Your task to perform on an android device: create a new album in the google photos Image 0: 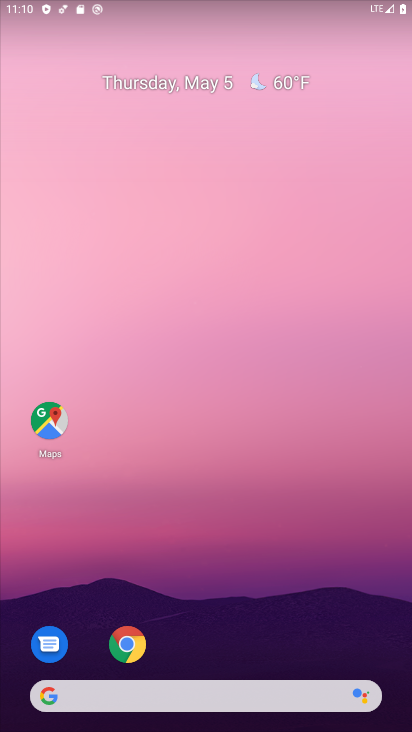
Step 0: drag from (363, 632) to (313, 111)
Your task to perform on an android device: create a new album in the google photos Image 1: 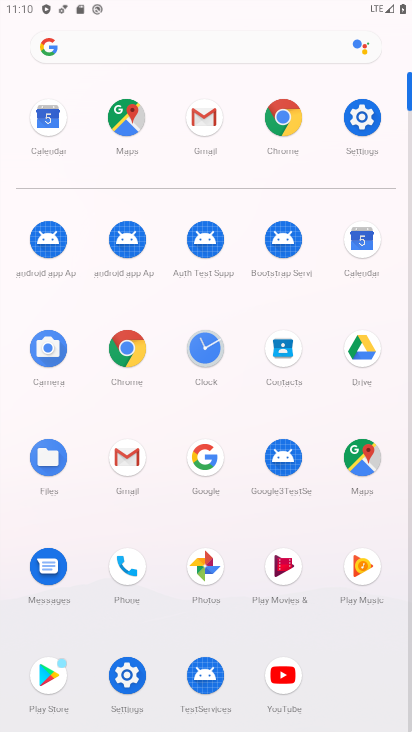
Step 1: click (207, 574)
Your task to perform on an android device: create a new album in the google photos Image 2: 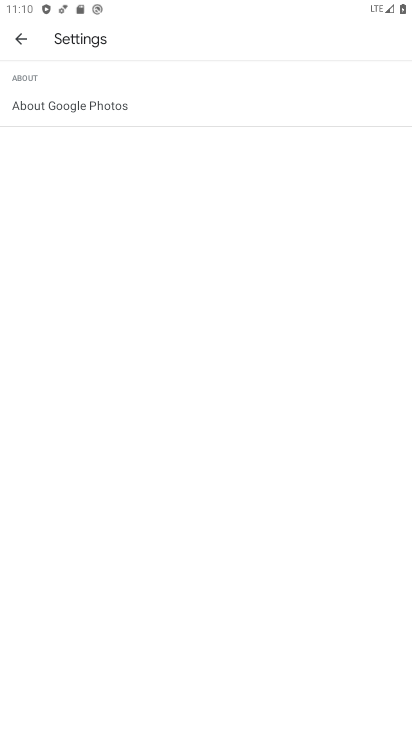
Step 2: click (19, 35)
Your task to perform on an android device: create a new album in the google photos Image 3: 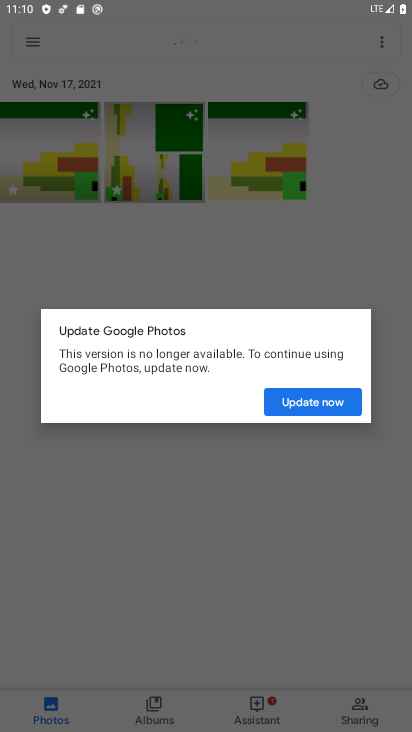
Step 3: click (306, 409)
Your task to perform on an android device: create a new album in the google photos Image 4: 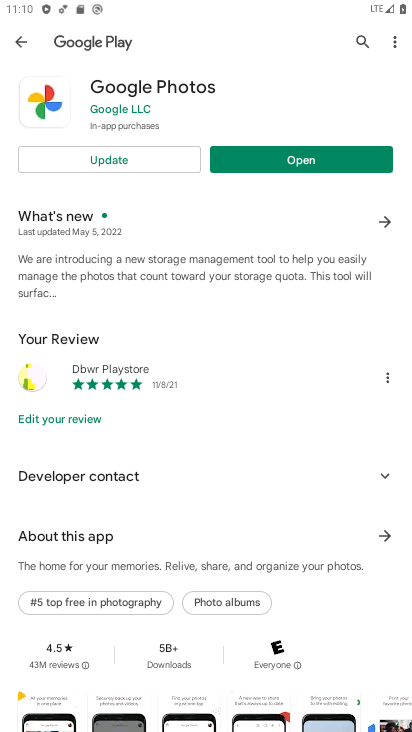
Step 4: click (146, 155)
Your task to perform on an android device: create a new album in the google photos Image 5: 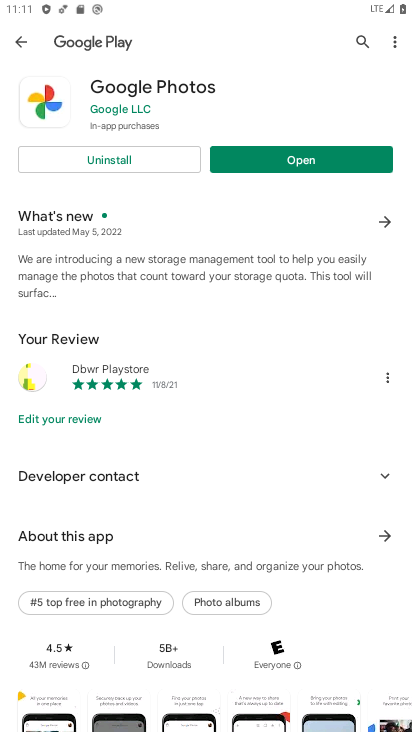
Step 5: click (330, 160)
Your task to perform on an android device: create a new album in the google photos Image 6: 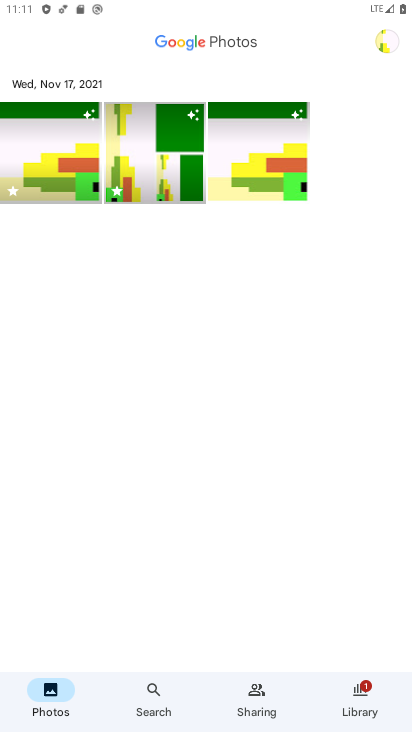
Step 6: click (367, 701)
Your task to perform on an android device: create a new album in the google photos Image 7: 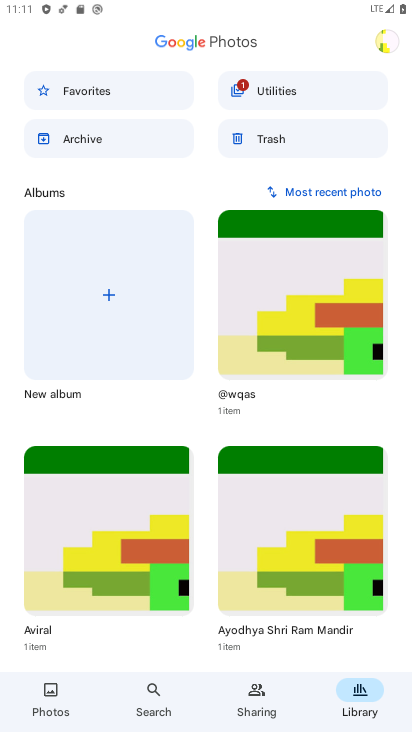
Step 7: click (100, 295)
Your task to perform on an android device: create a new album in the google photos Image 8: 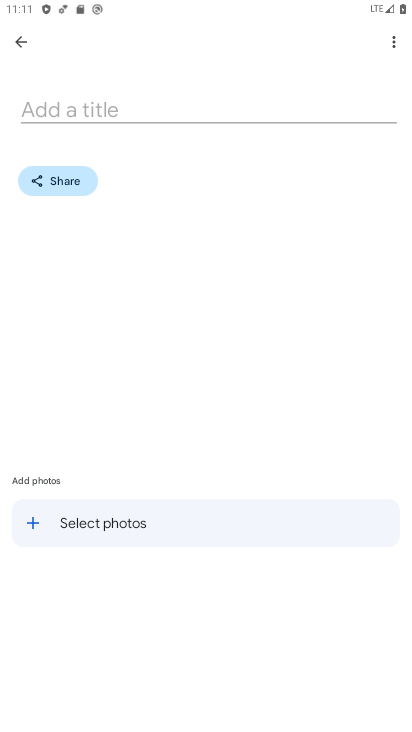
Step 8: click (133, 107)
Your task to perform on an android device: create a new album in the google photos Image 9: 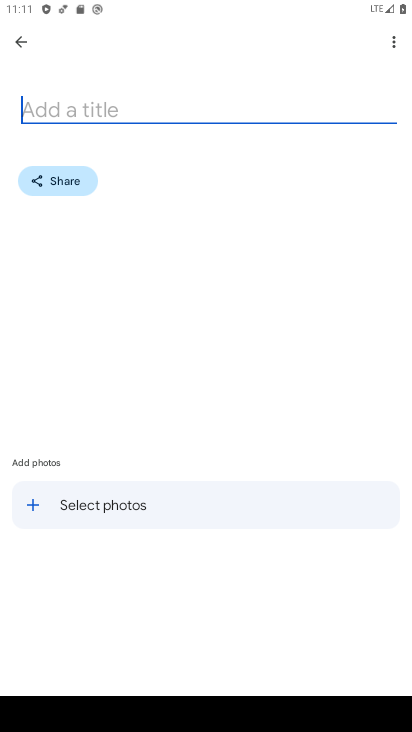
Step 9: type "aaada"
Your task to perform on an android device: create a new album in the google photos Image 10: 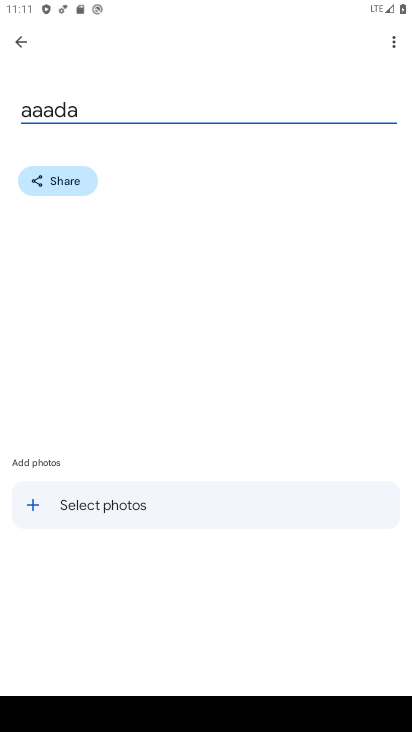
Step 10: click (33, 505)
Your task to perform on an android device: create a new album in the google photos Image 11: 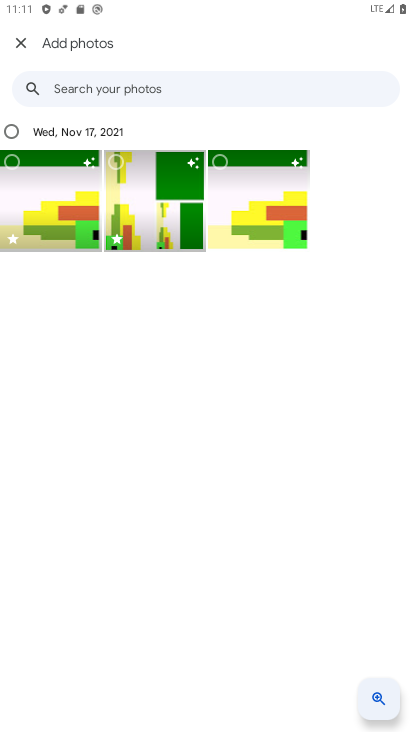
Step 11: click (15, 165)
Your task to perform on an android device: create a new album in the google photos Image 12: 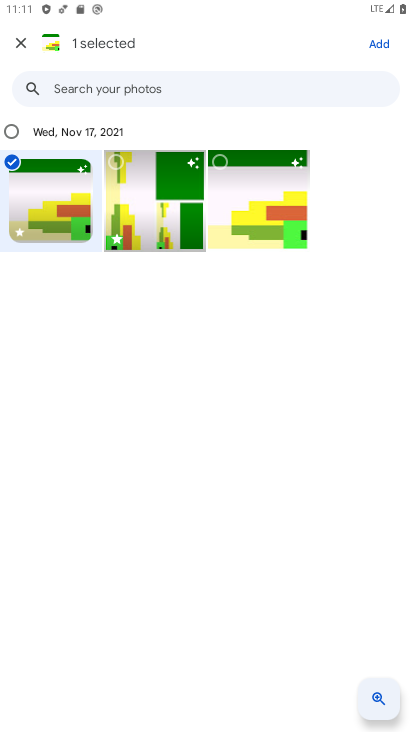
Step 12: click (377, 43)
Your task to perform on an android device: create a new album in the google photos Image 13: 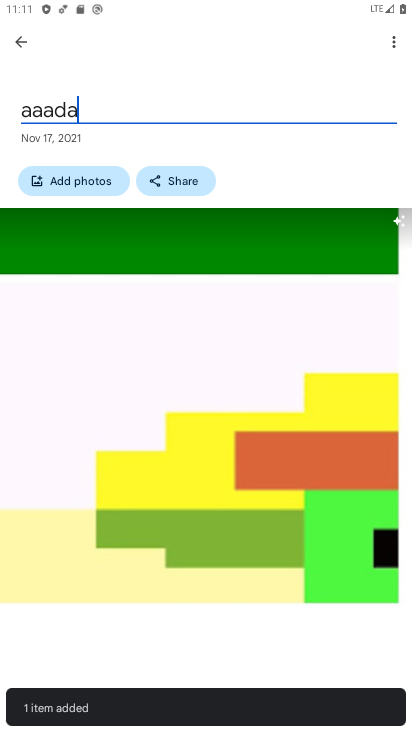
Step 13: task complete